Your task to perform on an android device: check android version Image 0: 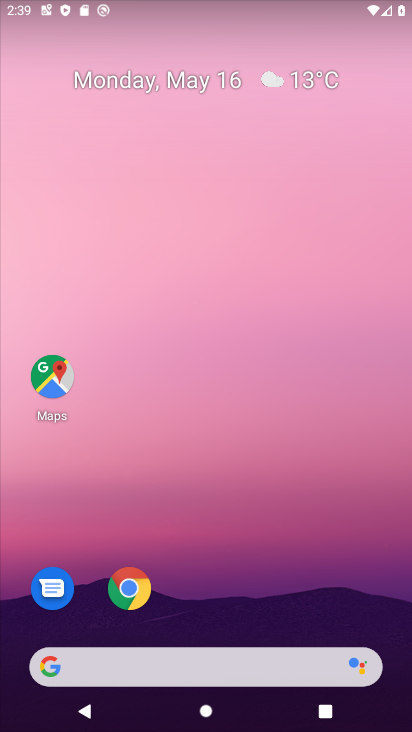
Step 0: drag from (303, 696) to (281, 40)
Your task to perform on an android device: check android version Image 1: 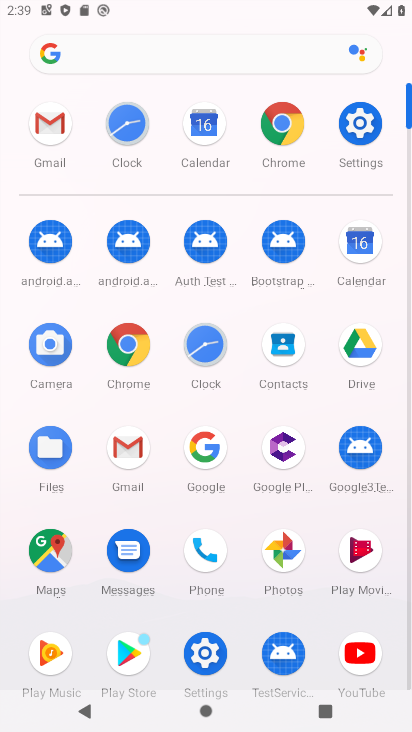
Step 1: click (372, 127)
Your task to perform on an android device: check android version Image 2: 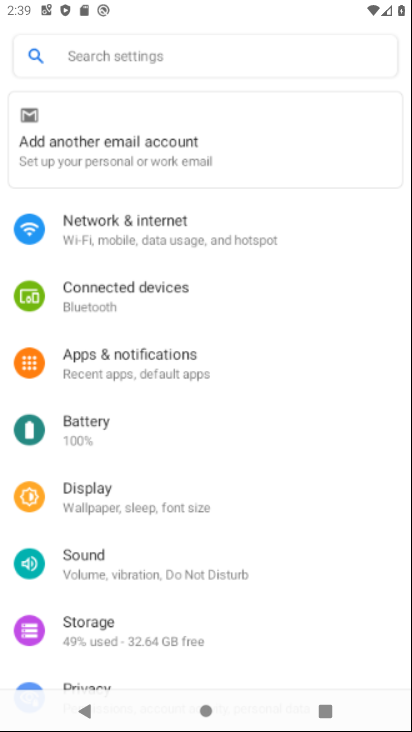
Step 2: drag from (206, 659) to (213, 233)
Your task to perform on an android device: check android version Image 3: 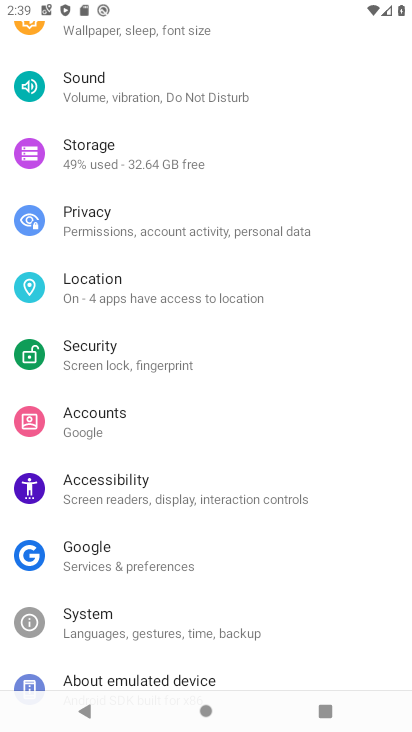
Step 3: drag from (279, 673) to (238, 157)
Your task to perform on an android device: check android version Image 4: 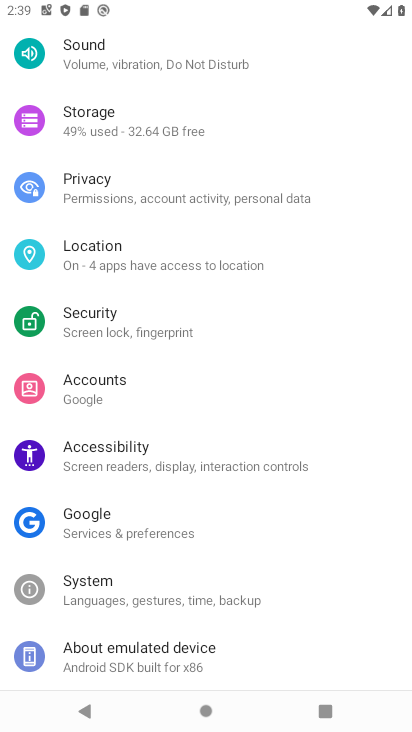
Step 4: click (156, 658)
Your task to perform on an android device: check android version Image 5: 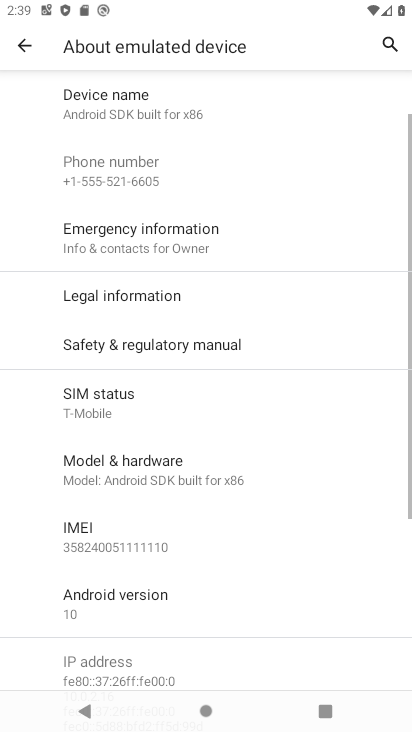
Step 5: click (160, 600)
Your task to perform on an android device: check android version Image 6: 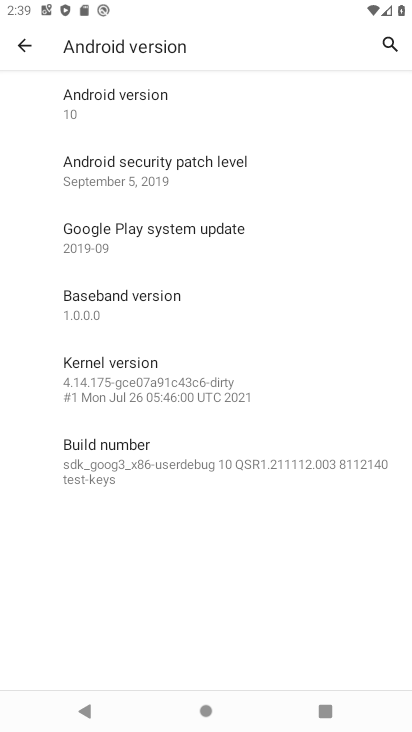
Step 6: task complete